Your task to perform on an android device: Go to location settings Image 0: 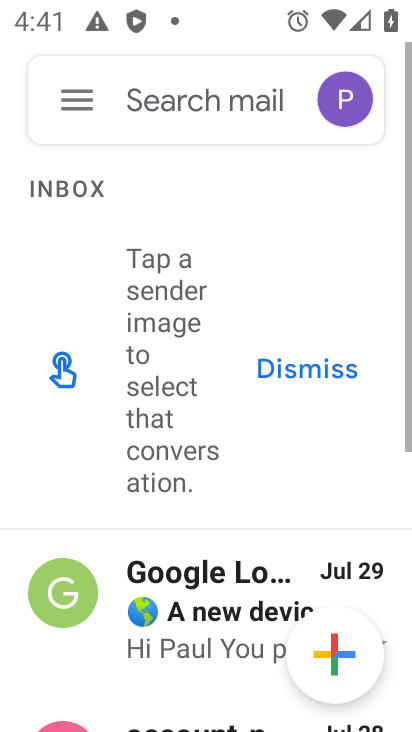
Step 0: press home button
Your task to perform on an android device: Go to location settings Image 1: 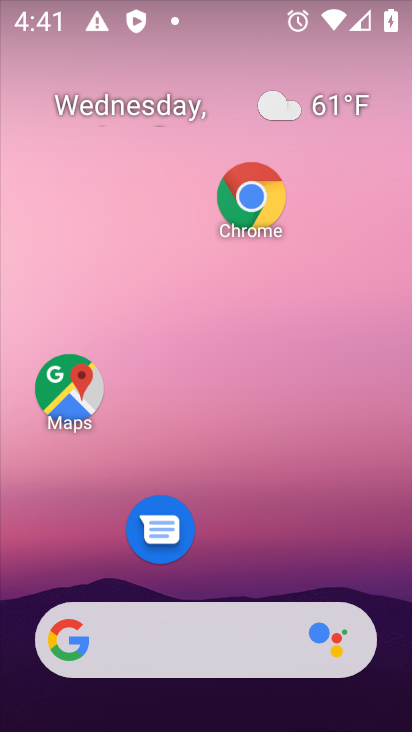
Step 1: drag from (209, 574) to (44, 142)
Your task to perform on an android device: Go to location settings Image 2: 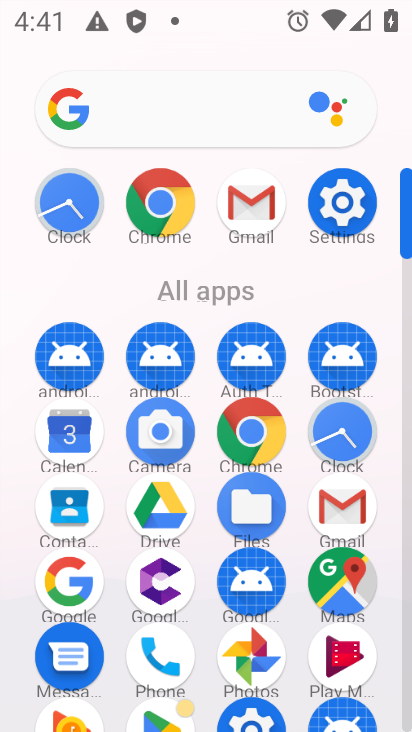
Step 2: click (345, 212)
Your task to perform on an android device: Go to location settings Image 3: 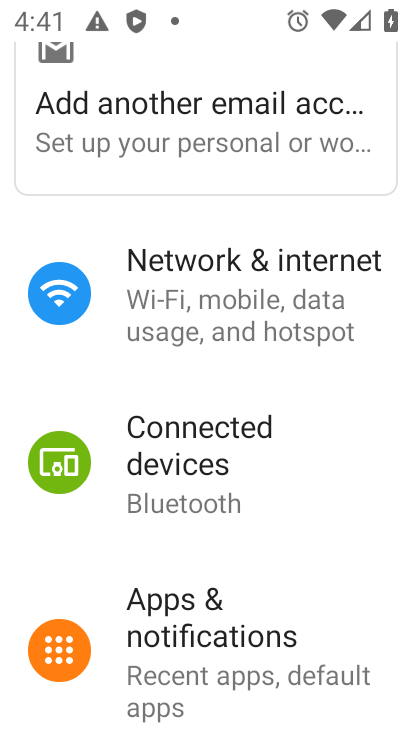
Step 3: drag from (197, 628) to (271, 222)
Your task to perform on an android device: Go to location settings Image 4: 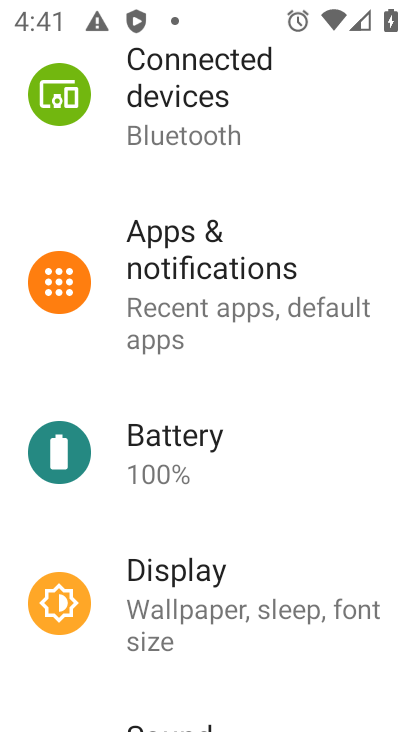
Step 4: drag from (161, 569) to (213, 284)
Your task to perform on an android device: Go to location settings Image 5: 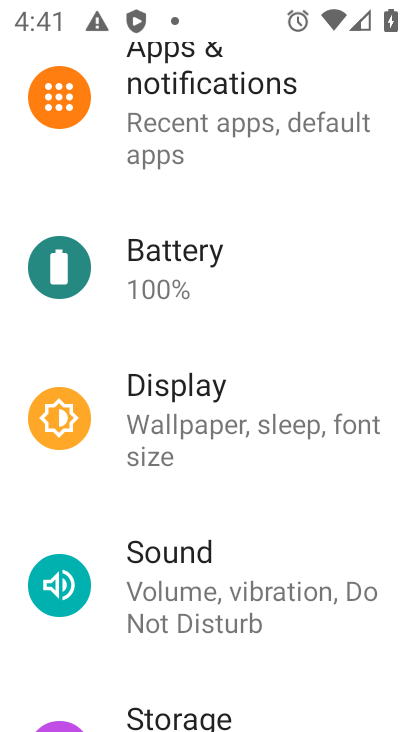
Step 5: drag from (227, 540) to (254, 214)
Your task to perform on an android device: Go to location settings Image 6: 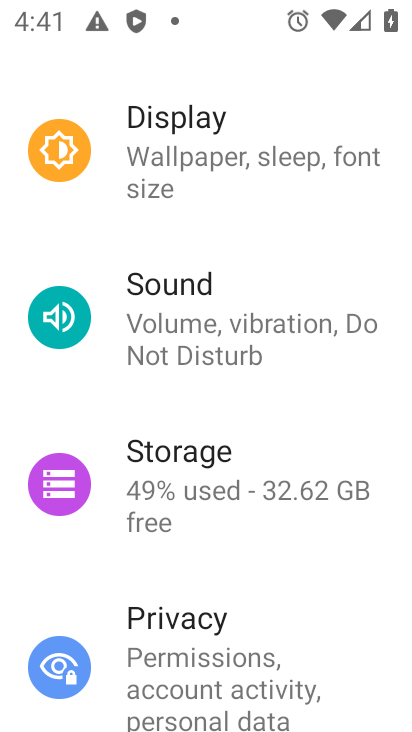
Step 6: drag from (225, 542) to (218, 173)
Your task to perform on an android device: Go to location settings Image 7: 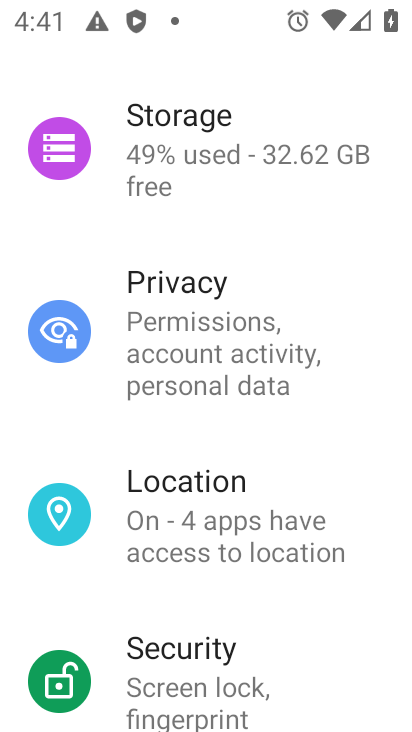
Step 7: click (167, 532)
Your task to perform on an android device: Go to location settings Image 8: 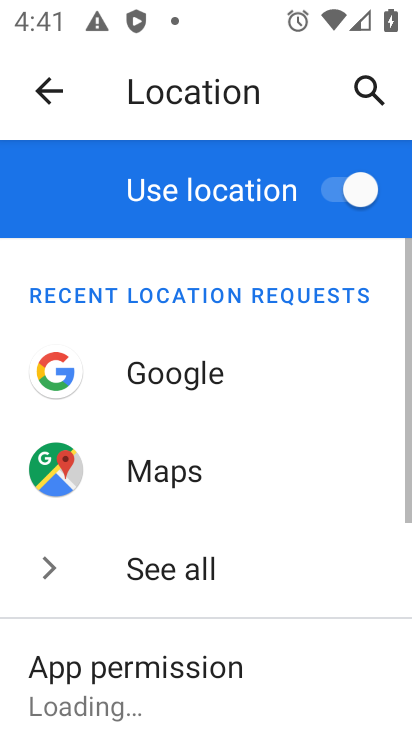
Step 8: task complete